Your task to perform on an android device: What's the weather today? Image 0: 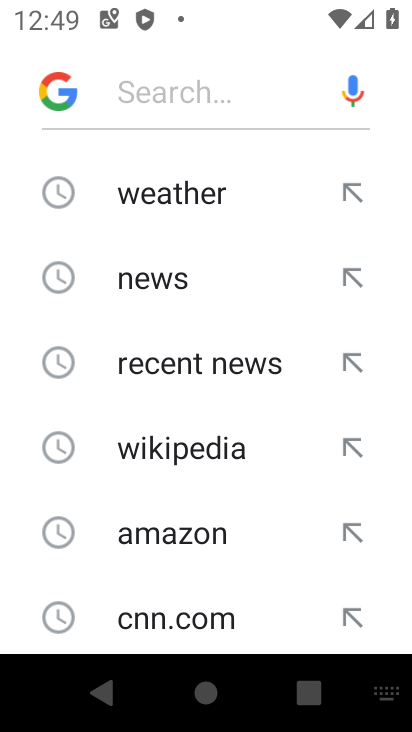
Step 0: click (207, 212)
Your task to perform on an android device: What's the weather today? Image 1: 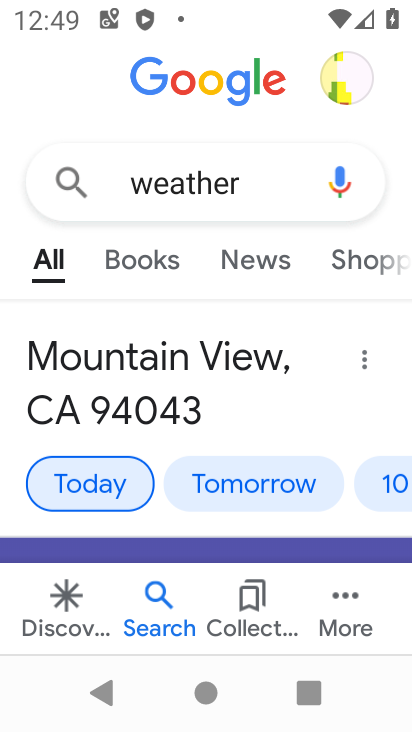
Step 1: task complete